Your task to perform on an android device: toggle improve location accuracy Image 0: 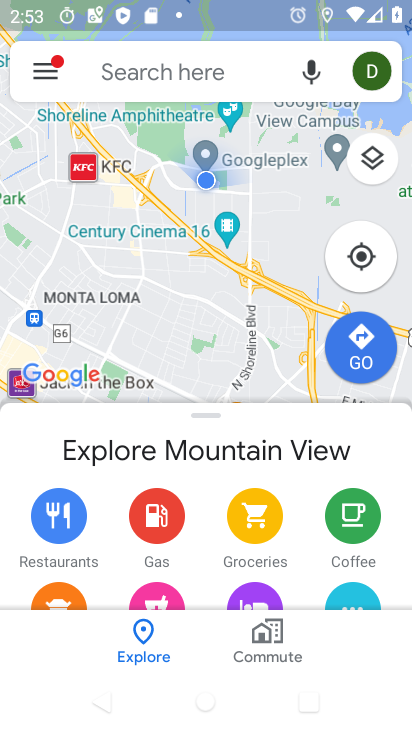
Step 0: press home button
Your task to perform on an android device: toggle improve location accuracy Image 1: 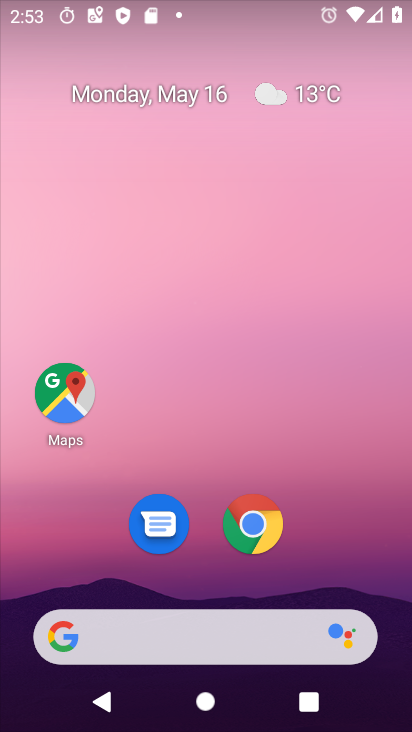
Step 1: drag from (313, 557) to (332, 44)
Your task to perform on an android device: toggle improve location accuracy Image 2: 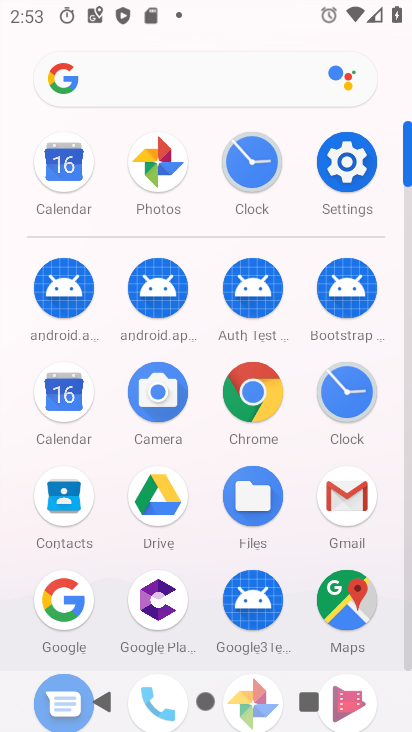
Step 2: click (334, 156)
Your task to perform on an android device: toggle improve location accuracy Image 3: 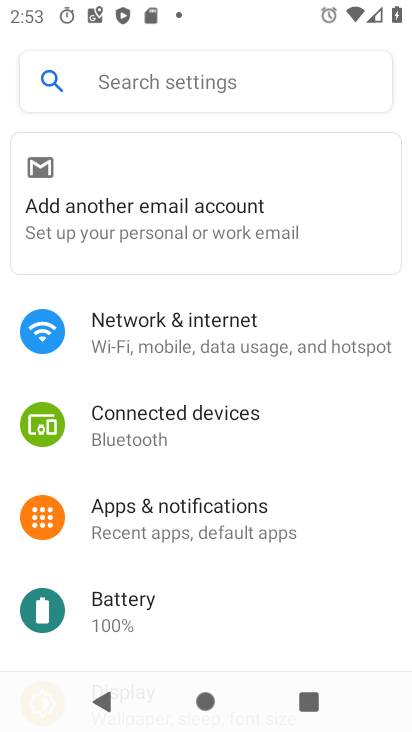
Step 3: drag from (239, 560) to (258, 152)
Your task to perform on an android device: toggle improve location accuracy Image 4: 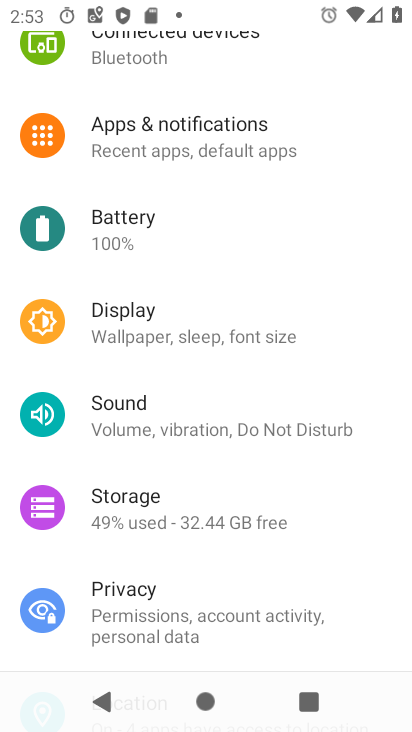
Step 4: drag from (222, 598) to (225, 147)
Your task to perform on an android device: toggle improve location accuracy Image 5: 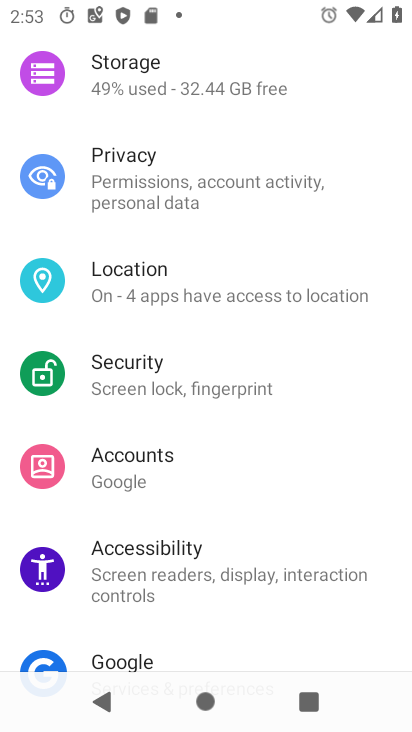
Step 5: click (212, 281)
Your task to perform on an android device: toggle improve location accuracy Image 6: 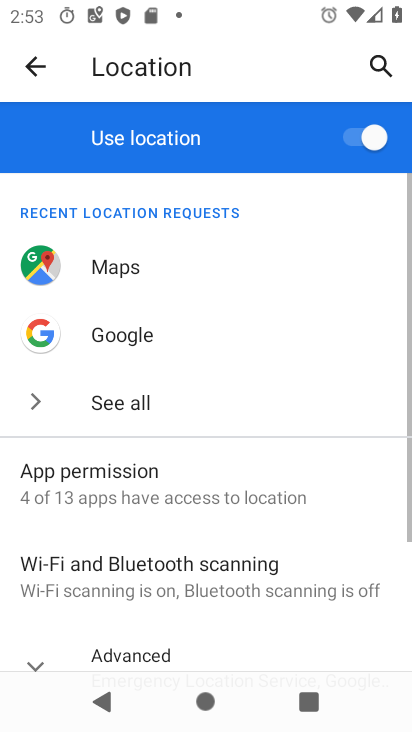
Step 6: click (35, 661)
Your task to perform on an android device: toggle improve location accuracy Image 7: 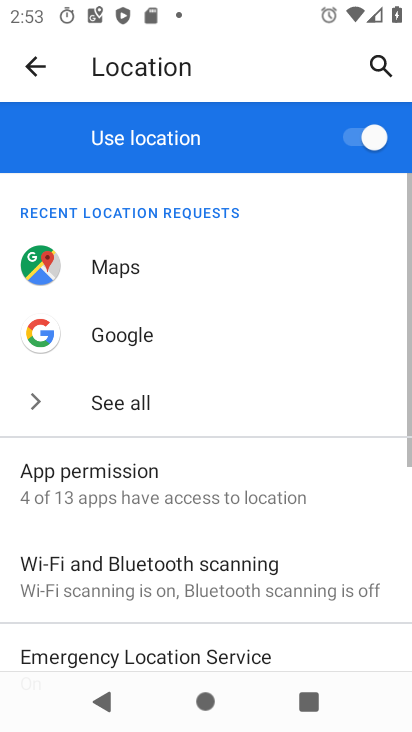
Step 7: drag from (238, 514) to (255, 171)
Your task to perform on an android device: toggle improve location accuracy Image 8: 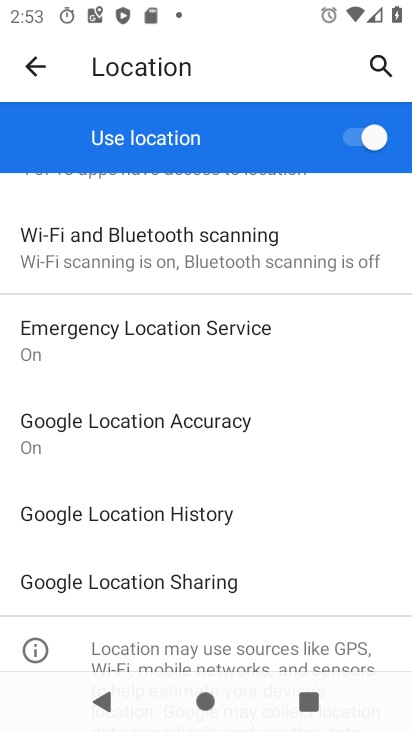
Step 8: click (179, 425)
Your task to perform on an android device: toggle improve location accuracy Image 9: 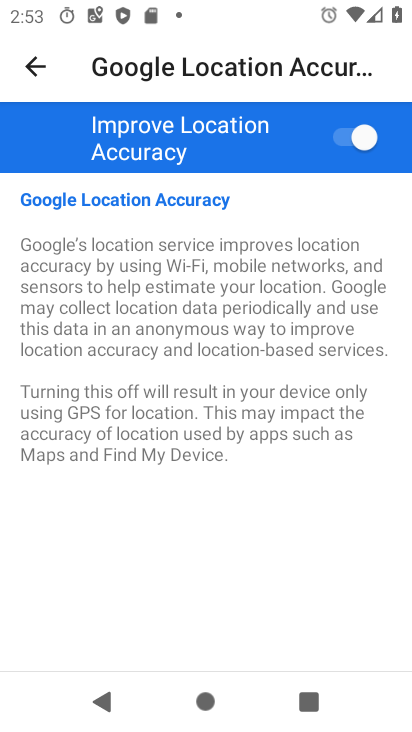
Step 9: click (340, 129)
Your task to perform on an android device: toggle improve location accuracy Image 10: 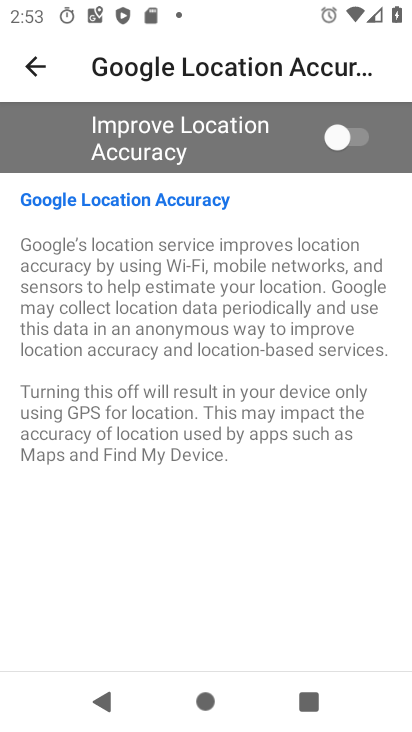
Step 10: task complete